Your task to perform on an android device: turn pop-ups off in chrome Image 0: 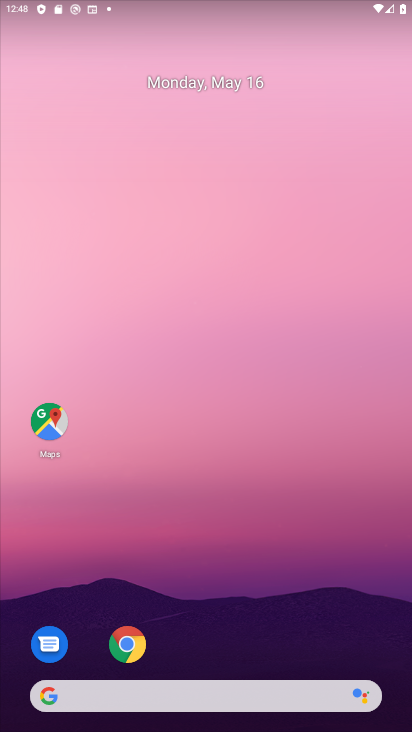
Step 0: click (133, 639)
Your task to perform on an android device: turn pop-ups off in chrome Image 1: 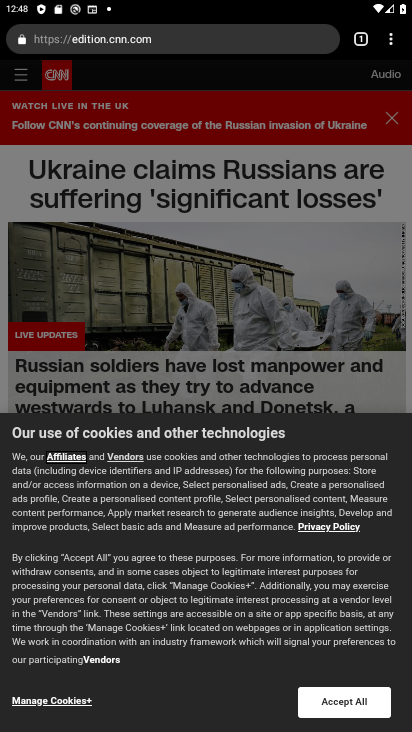
Step 1: drag from (389, 46) to (274, 434)
Your task to perform on an android device: turn pop-ups off in chrome Image 2: 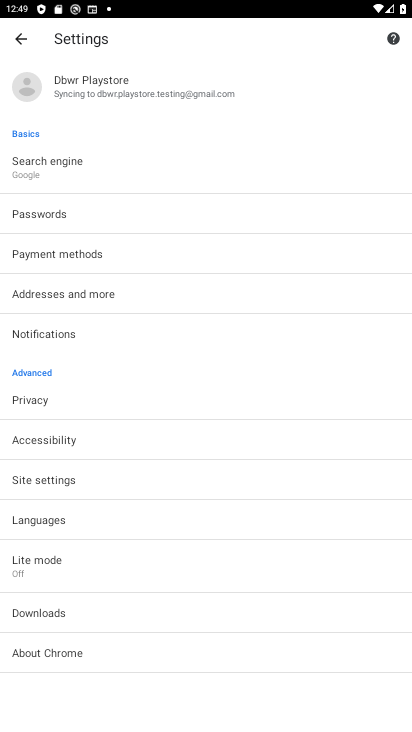
Step 2: click (52, 471)
Your task to perform on an android device: turn pop-ups off in chrome Image 3: 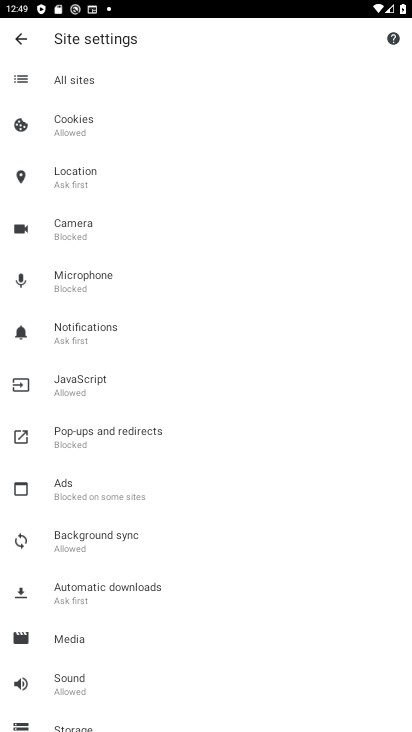
Step 3: drag from (172, 487) to (172, 383)
Your task to perform on an android device: turn pop-ups off in chrome Image 4: 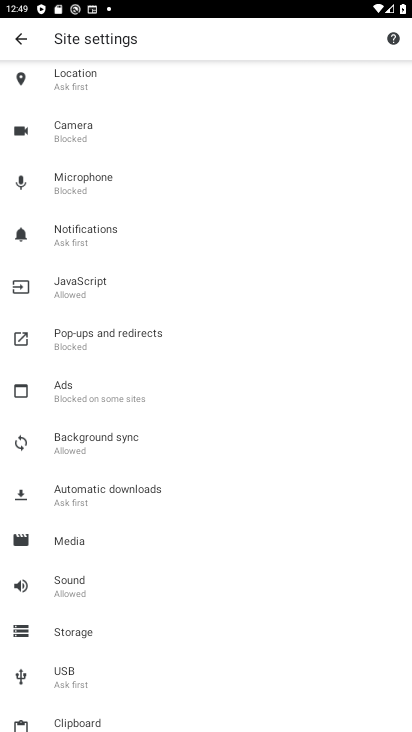
Step 4: click (134, 345)
Your task to perform on an android device: turn pop-ups off in chrome Image 5: 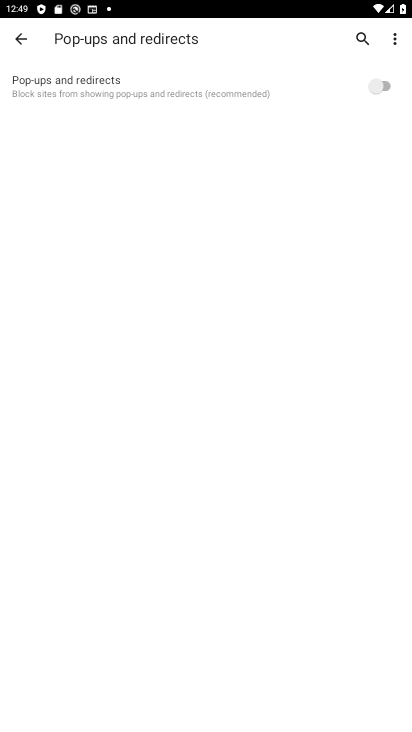
Step 5: task complete